Your task to perform on an android device: visit the assistant section in the google photos Image 0: 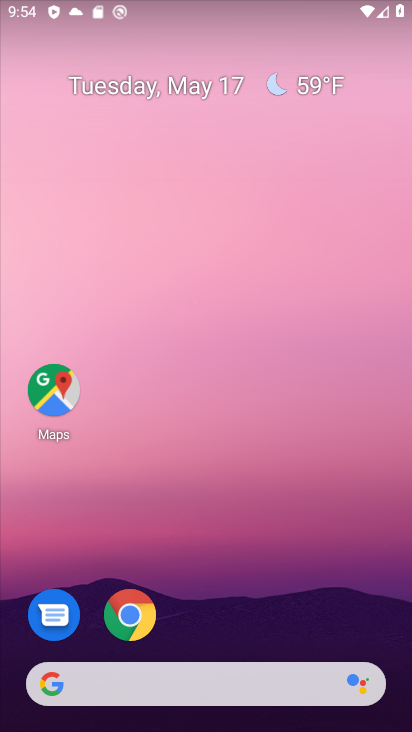
Step 0: drag from (252, 613) to (214, 332)
Your task to perform on an android device: visit the assistant section in the google photos Image 1: 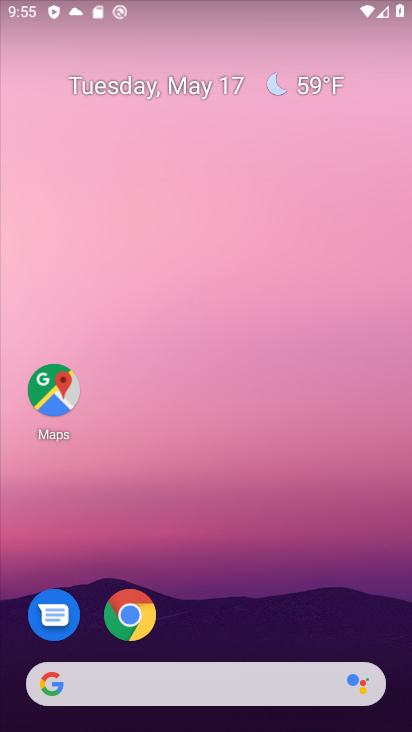
Step 1: drag from (189, 549) to (196, 313)
Your task to perform on an android device: visit the assistant section in the google photos Image 2: 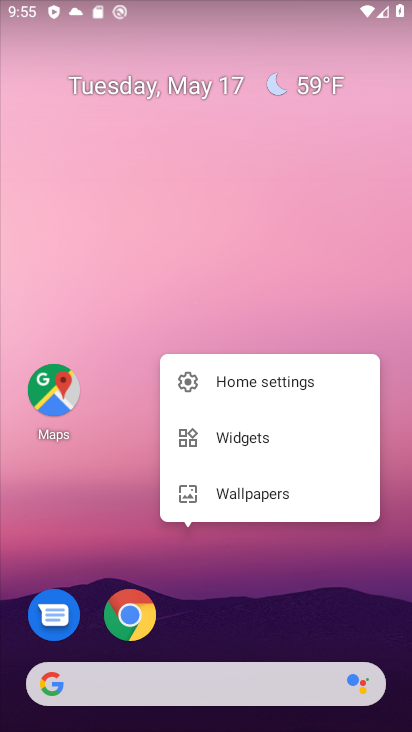
Step 2: drag from (224, 591) to (199, 316)
Your task to perform on an android device: visit the assistant section in the google photos Image 3: 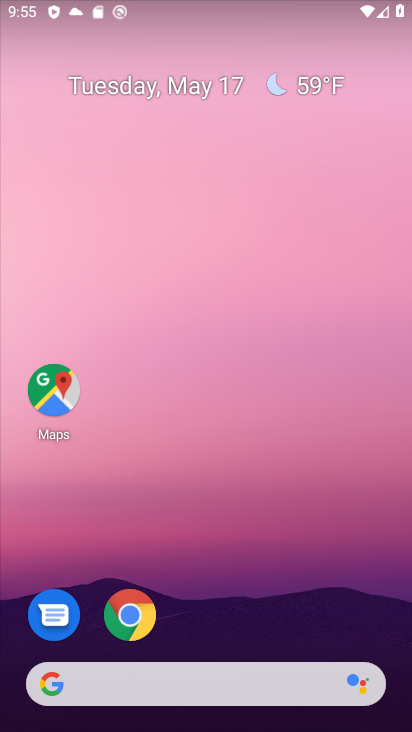
Step 3: drag from (185, 629) to (194, 242)
Your task to perform on an android device: visit the assistant section in the google photos Image 4: 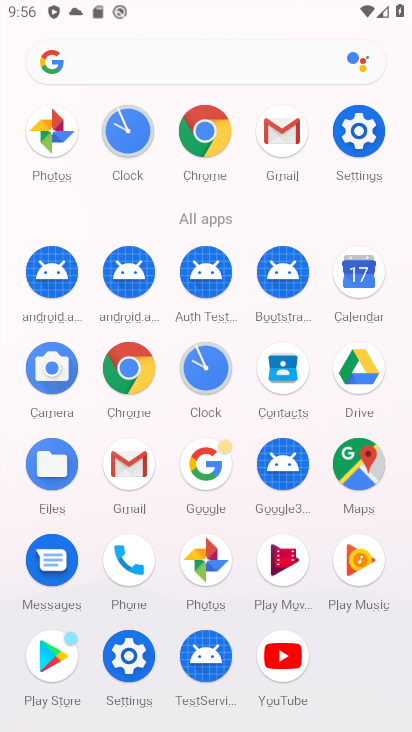
Step 4: click (209, 563)
Your task to perform on an android device: visit the assistant section in the google photos Image 5: 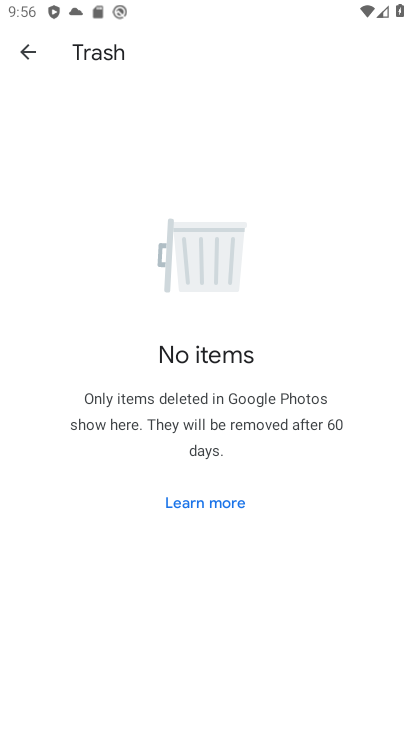
Step 5: click (24, 49)
Your task to perform on an android device: visit the assistant section in the google photos Image 6: 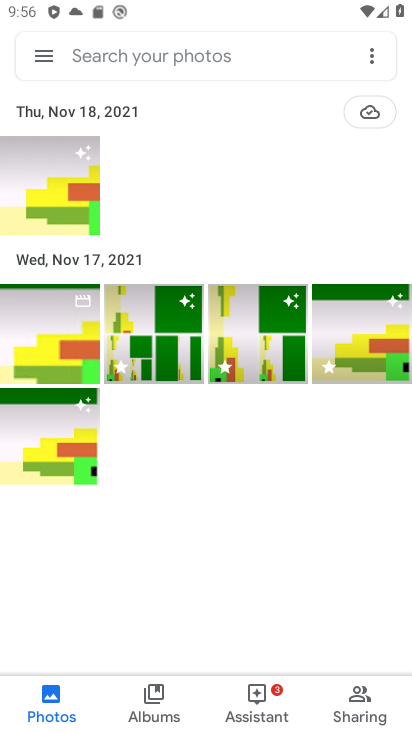
Step 6: click (48, 59)
Your task to perform on an android device: visit the assistant section in the google photos Image 7: 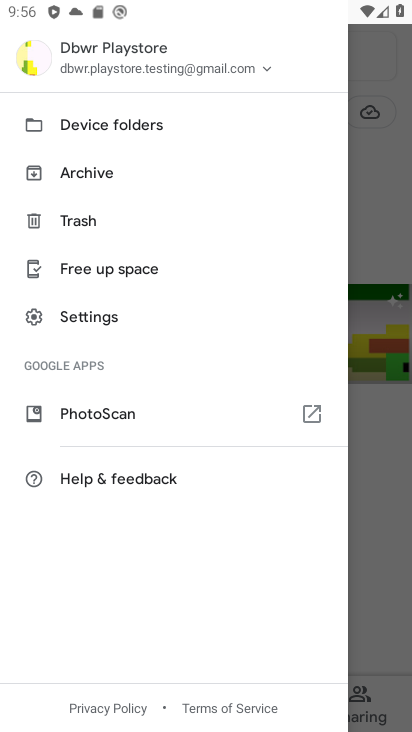
Step 7: press back button
Your task to perform on an android device: visit the assistant section in the google photos Image 8: 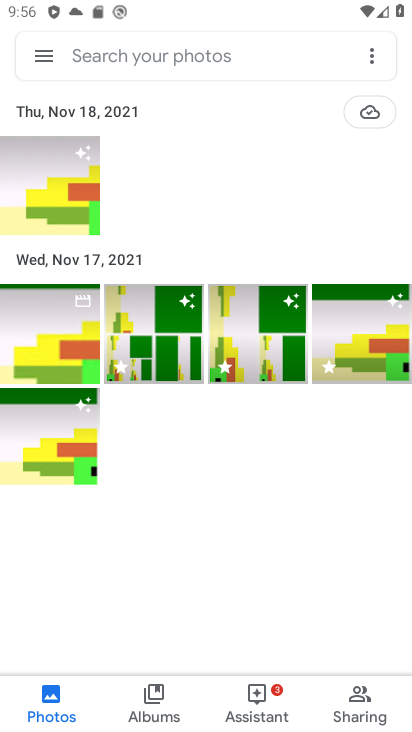
Step 8: click (258, 714)
Your task to perform on an android device: visit the assistant section in the google photos Image 9: 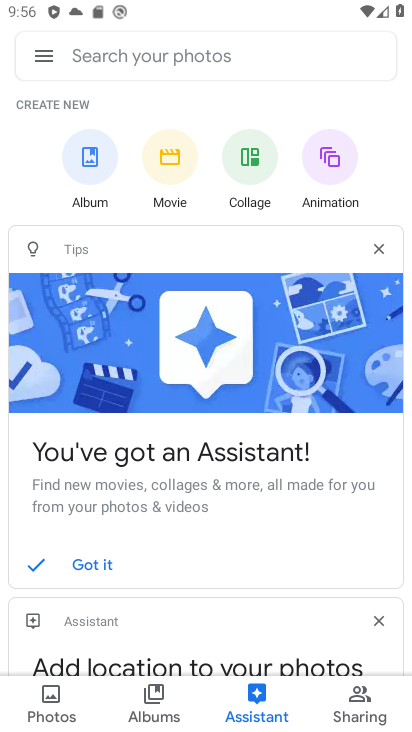
Step 9: task complete